Your task to perform on an android device: Open Google Chrome and click the shortcut for Amazon.com Image 0: 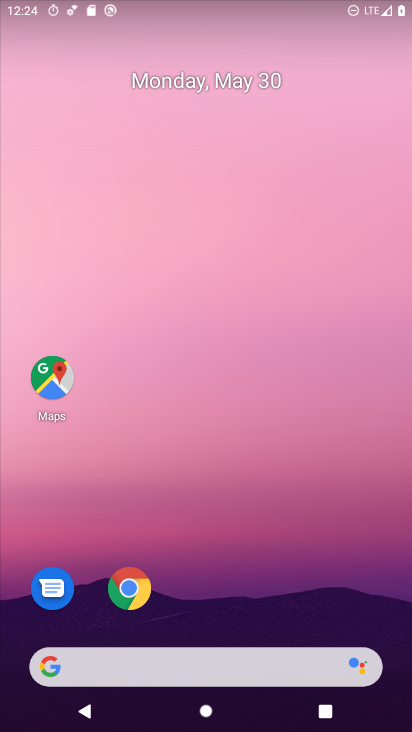
Step 0: drag from (306, 556) to (290, 98)
Your task to perform on an android device: Open Google Chrome and click the shortcut for Amazon.com Image 1: 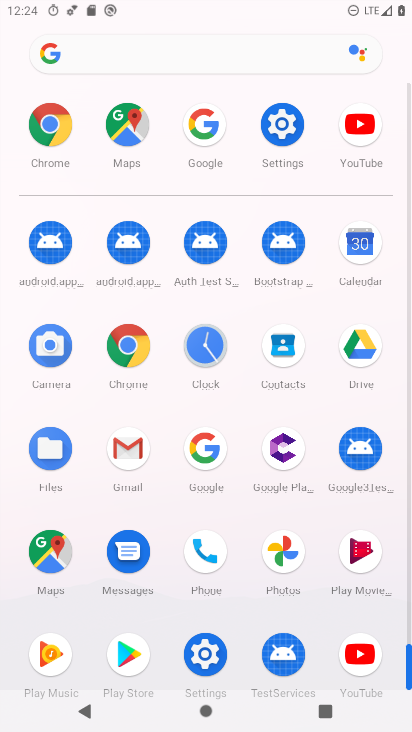
Step 1: click (129, 348)
Your task to perform on an android device: Open Google Chrome and click the shortcut for Amazon.com Image 2: 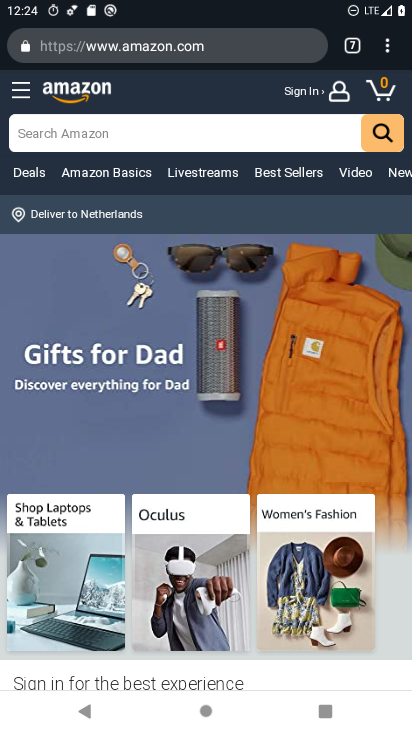
Step 2: task complete